Your task to perform on an android device: Show me popular games on the Play Store Image 0: 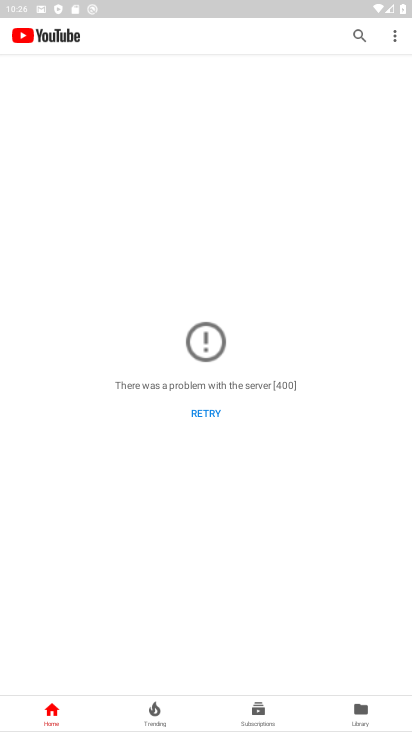
Step 0: press home button
Your task to perform on an android device: Show me popular games on the Play Store Image 1: 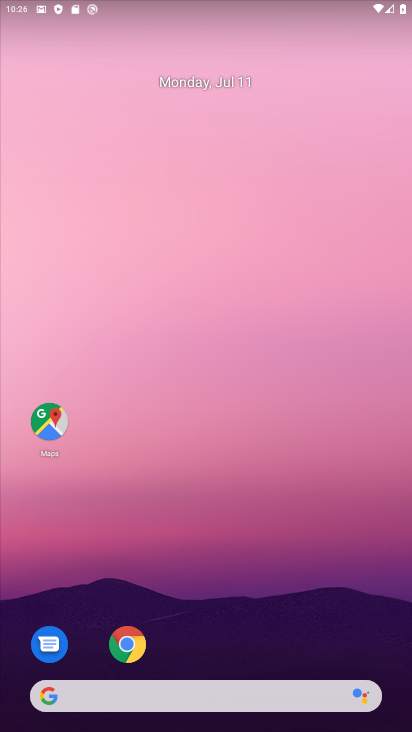
Step 1: drag from (217, 640) to (121, 149)
Your task to perform on an android device: Show me popular games on the Play Store Image 2: 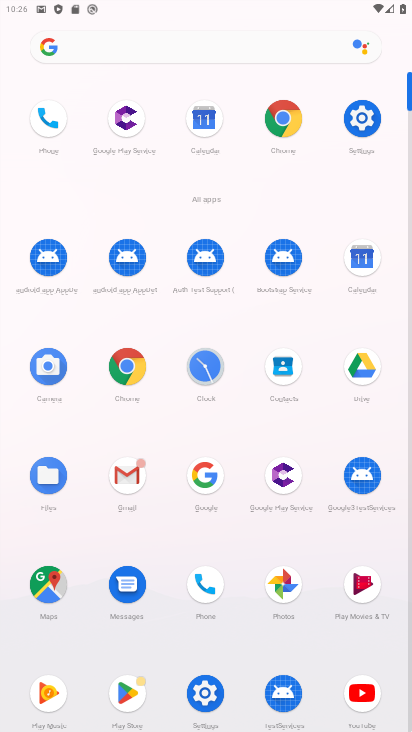
Step 2: click (141, 692)
Your task to perform on an android device: Show me popular games on the Play Store Image 3: 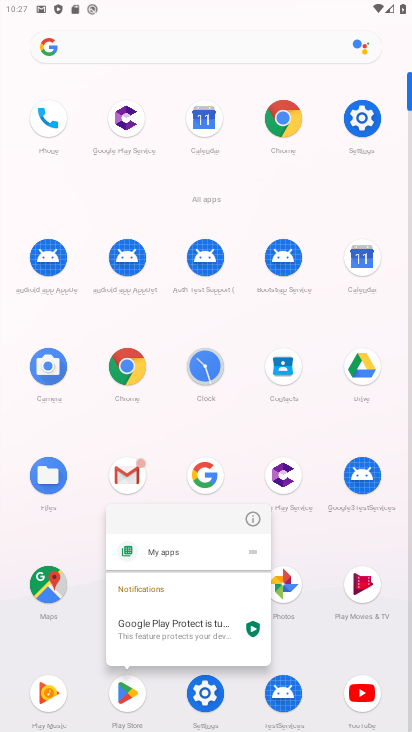
Step 3: click (134, 690)
Your task to perform on an android device: Show me popular games on the Play Store Image 4: 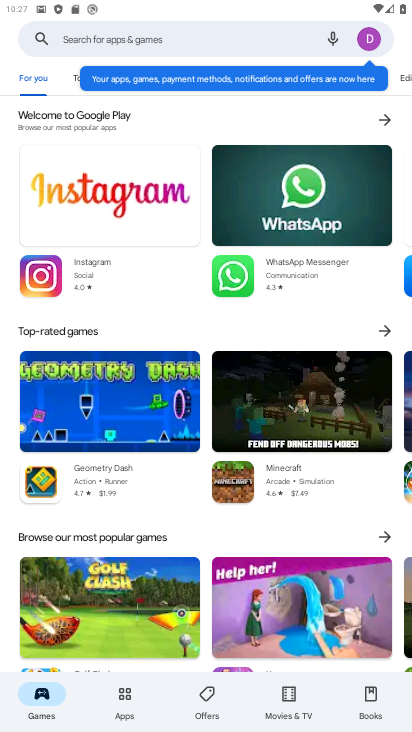
Step 4: task complete